Your task to perform on an android device: Add bose soundlink mini to the cart on newegg.com Image 0: 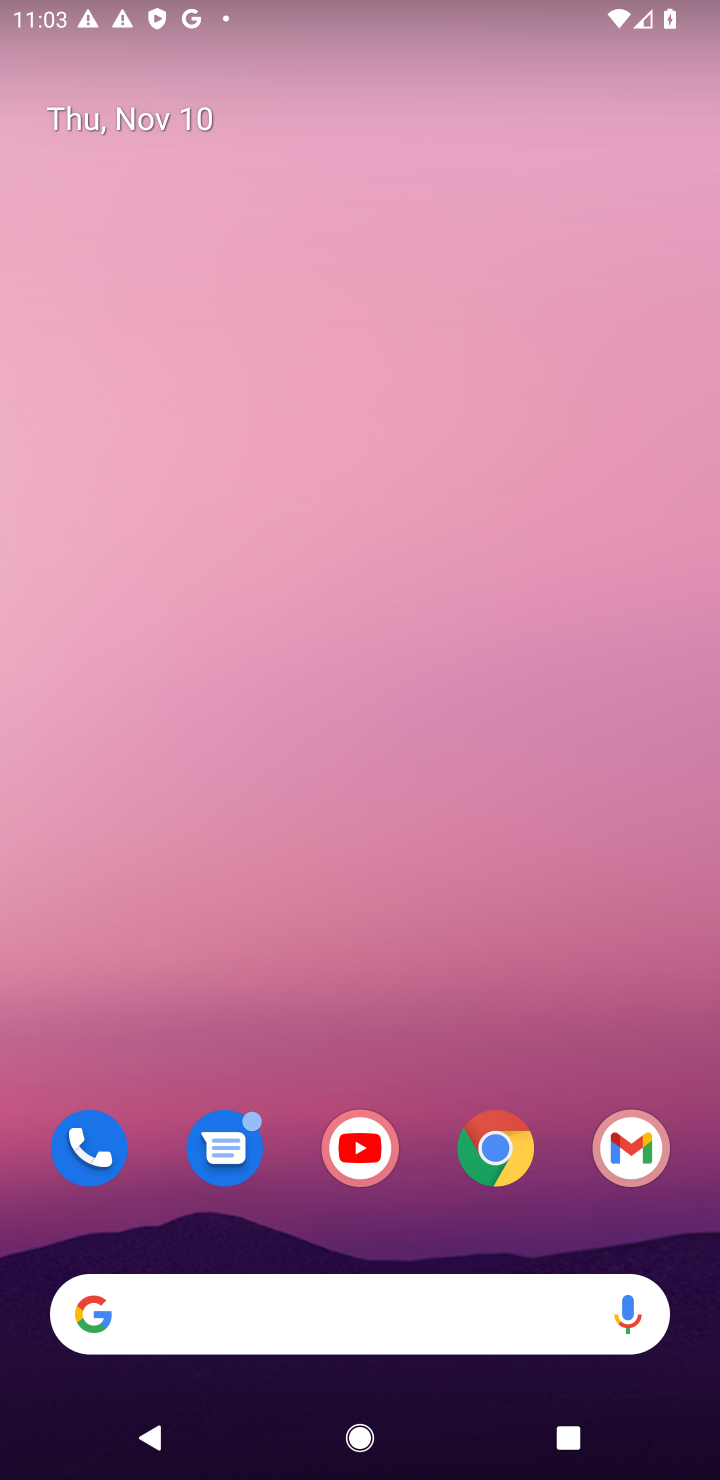
Step 0: click (484, 1167)
Your task to perform on an android device: Add bose soundlink mini to the cart on newegg.com Image 1: 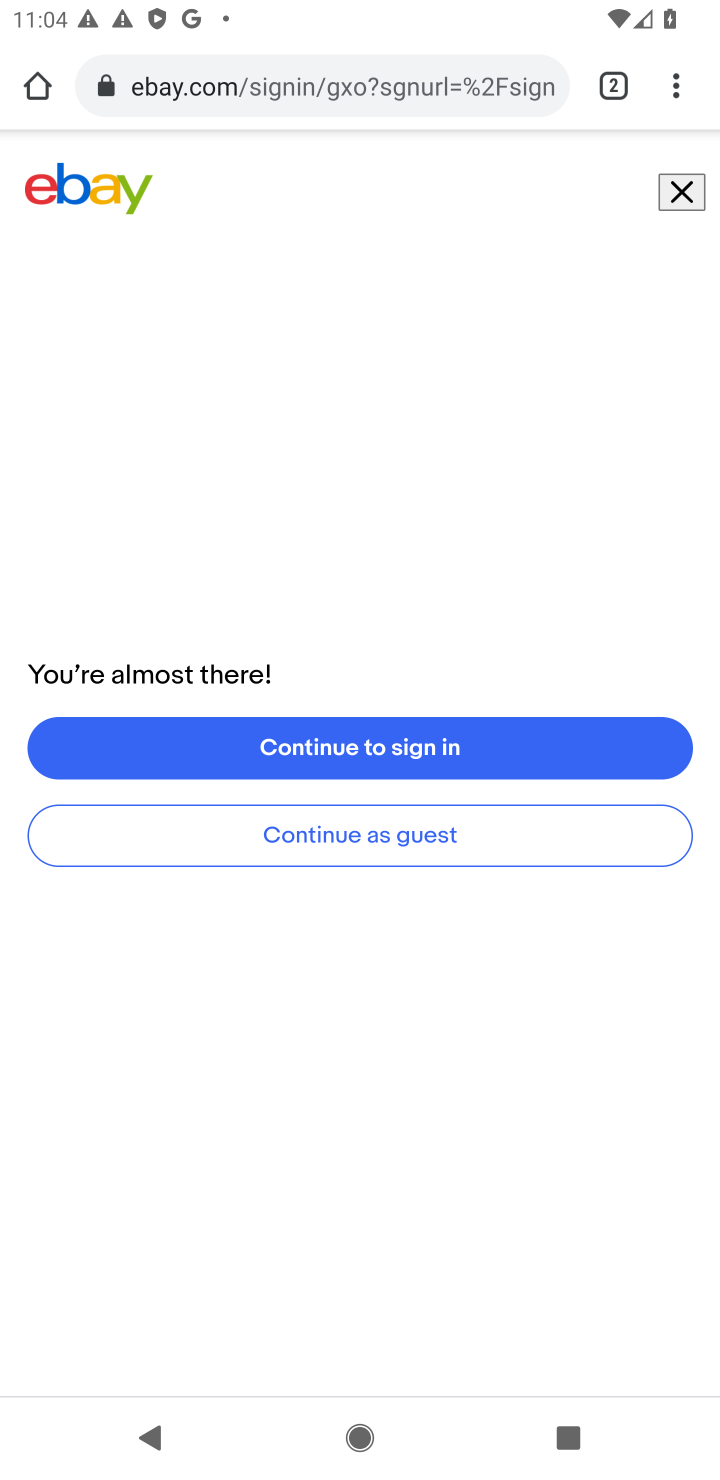
Step 1: click (617, 90)
Your task to perform on an android device: Add bose soundlink mini to the cart on newegg.com Image 2: 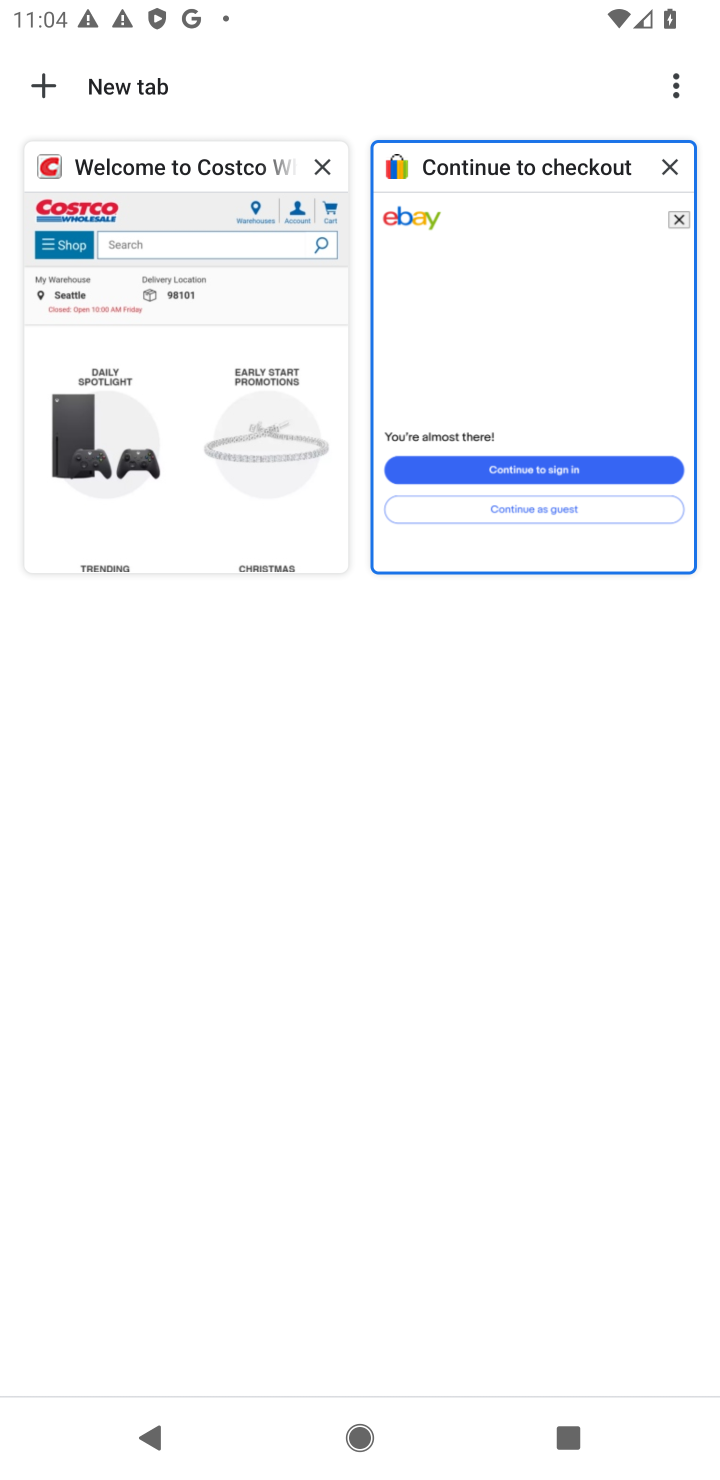
Step 2: click (42, 99)
Your task to perform on an android device: Add bose soundlink mini to the cart on newegg.com Image 3: 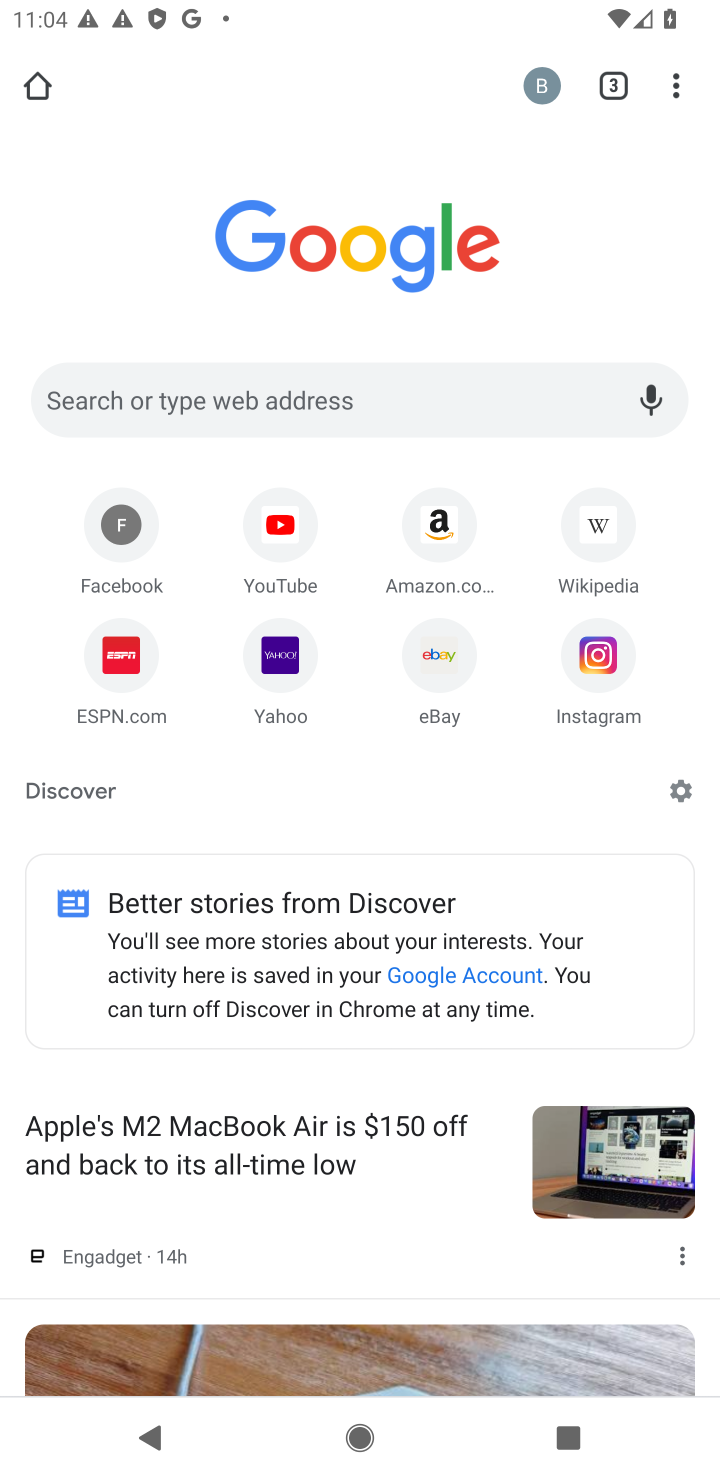
Step 3: click (344, 403)
Your task to perform on an android device: Add bose soundlink mini to the cart on newegg.com Image 4: 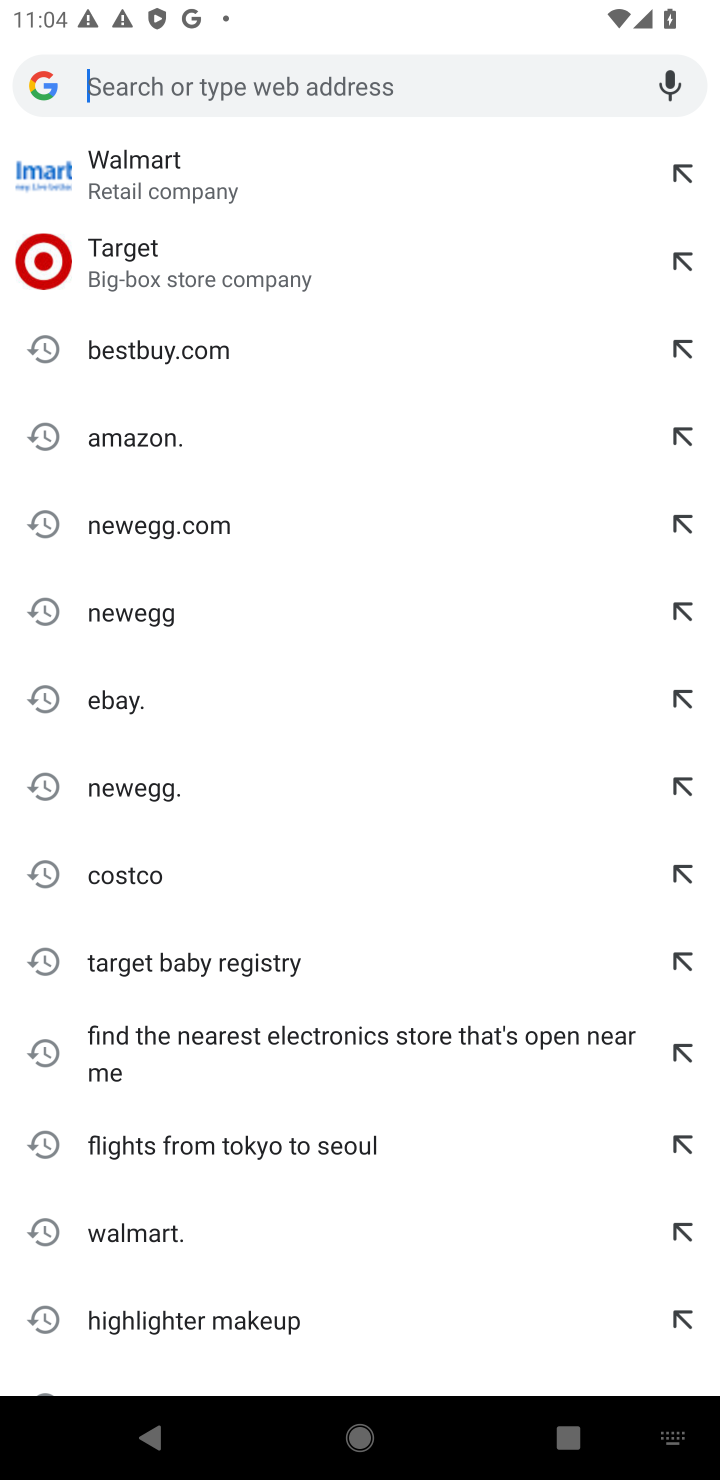
Step 4: click (153, 523)
Your task to perform on an android device: Add bose soundlink mini to the cart on newegg.com Image 5: 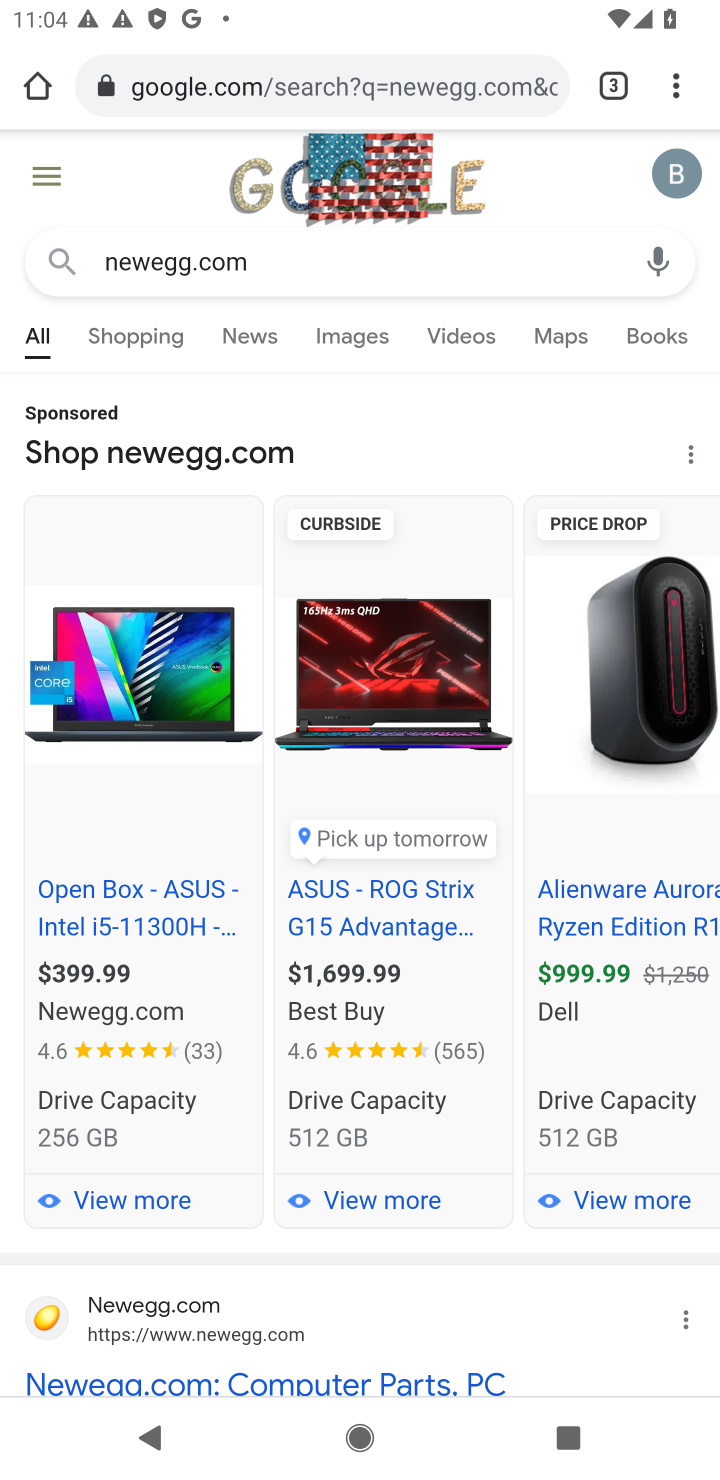
Step 5: drag from (264, 1273) to (325, 1050)
Your task to perform on an android device: Add bose soundlink mini to the cart on newegg.com Image 6: 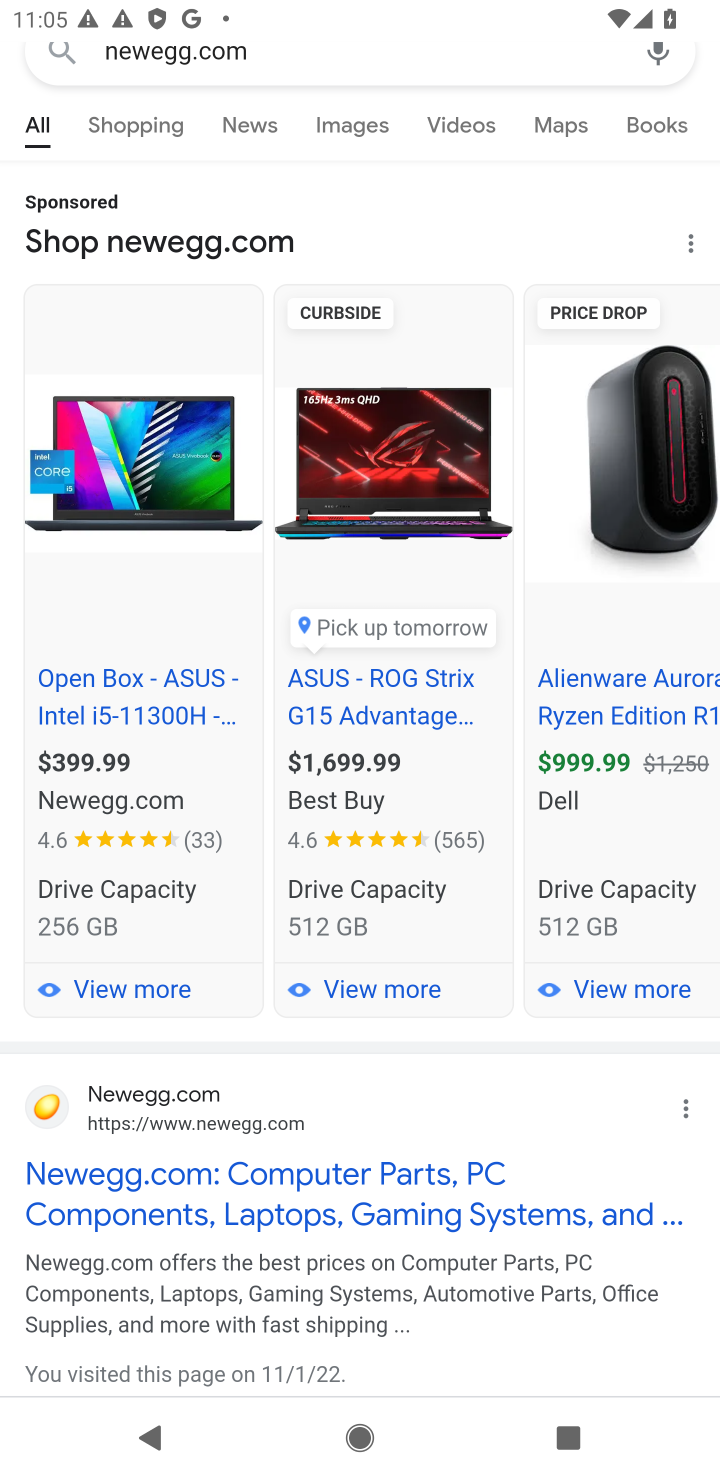
Step 6: drag from (329, 1271) to (364, 927)
Your task to perform on an android device: Add bose soundlink mini to the cart on newegg.com Image 7: 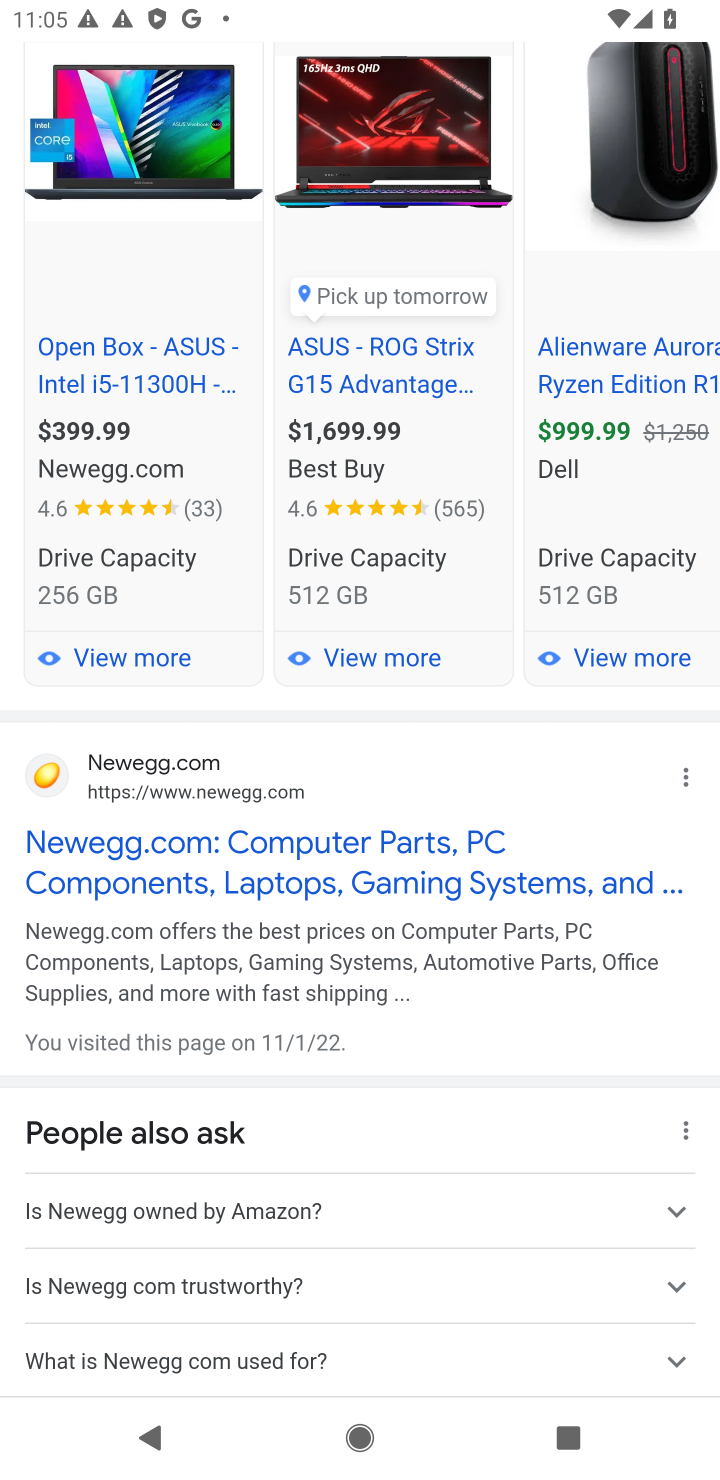
Step 7: click (364, 847)
Your task to perform on an android device: Add bose soundlink mini to the cart on newegg.com Image 8: 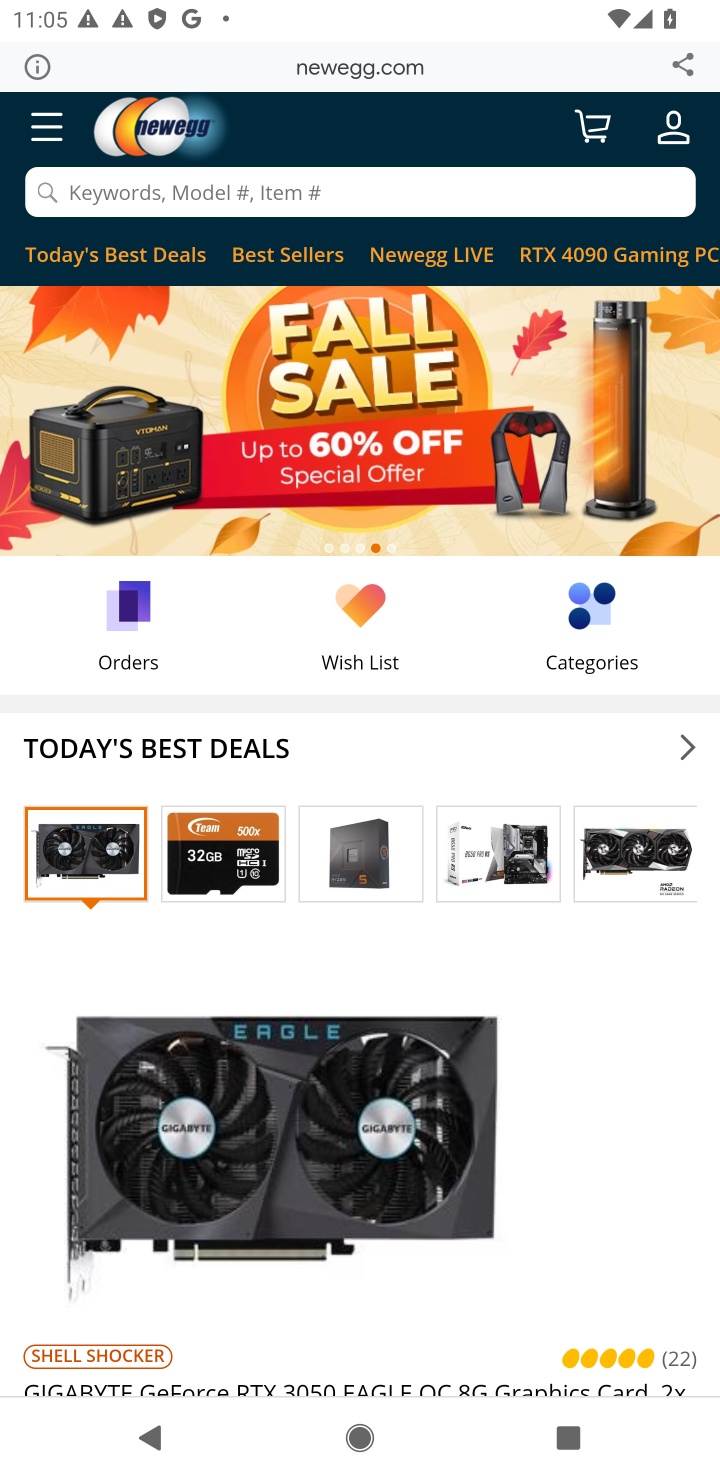
Step 8: click (298, 200)
Your task to perform on an android device: Add bose soundlink mini to the cart on newegg.com Image 9: 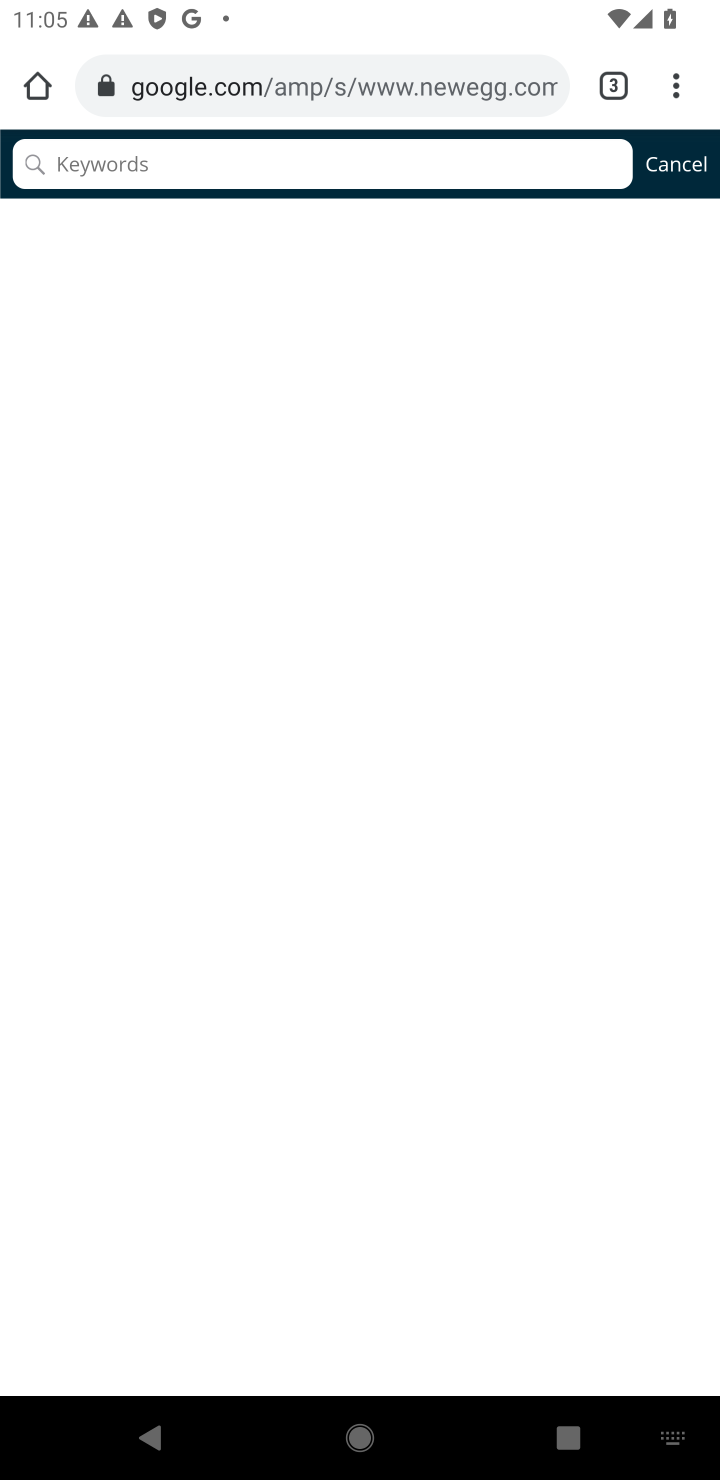
Step 9: type "bose soundlink mini"
Your task to perform on an android device: Add bose soundlink mini to the cart on newegg.com Image 10: 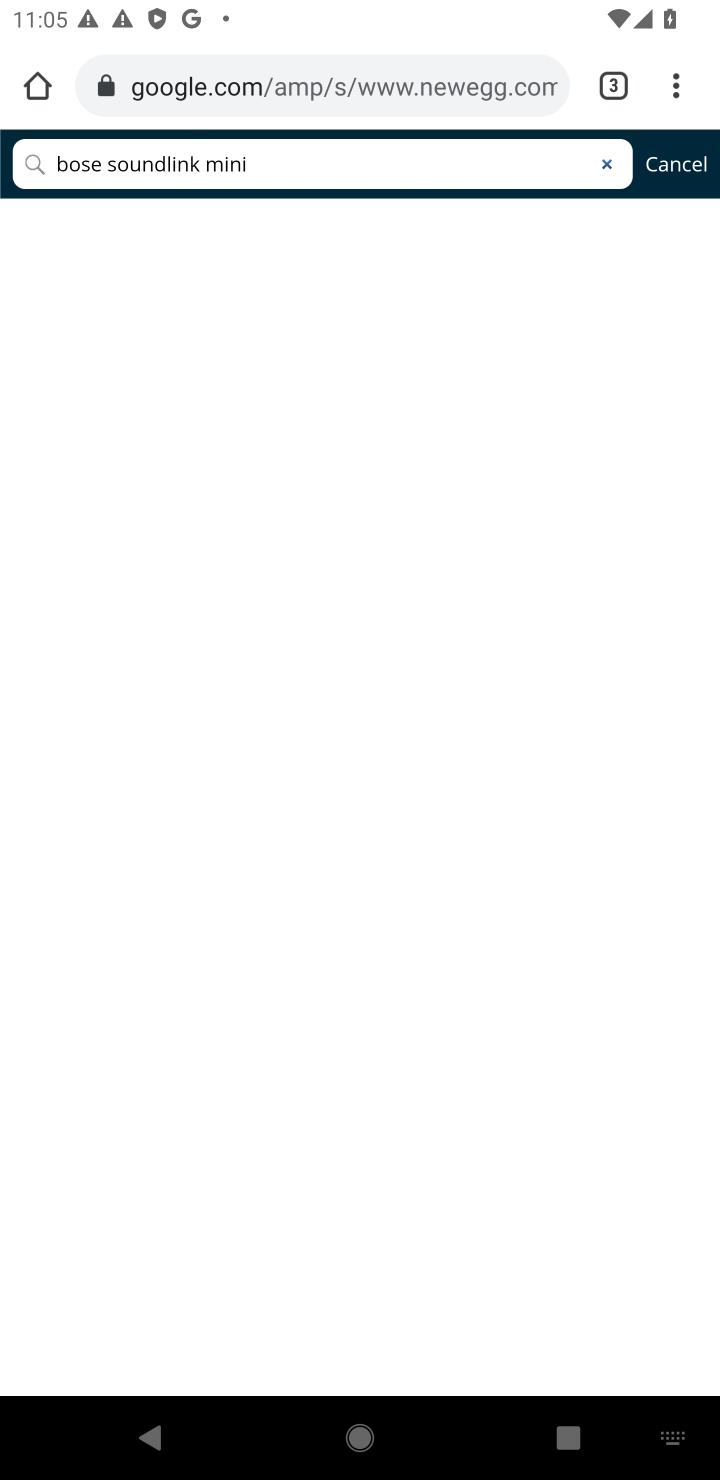
Step 10: click (678, 170)
Your task to perform on an android device: Add bose soundlink mini to the cart on newegg.com Image 11: 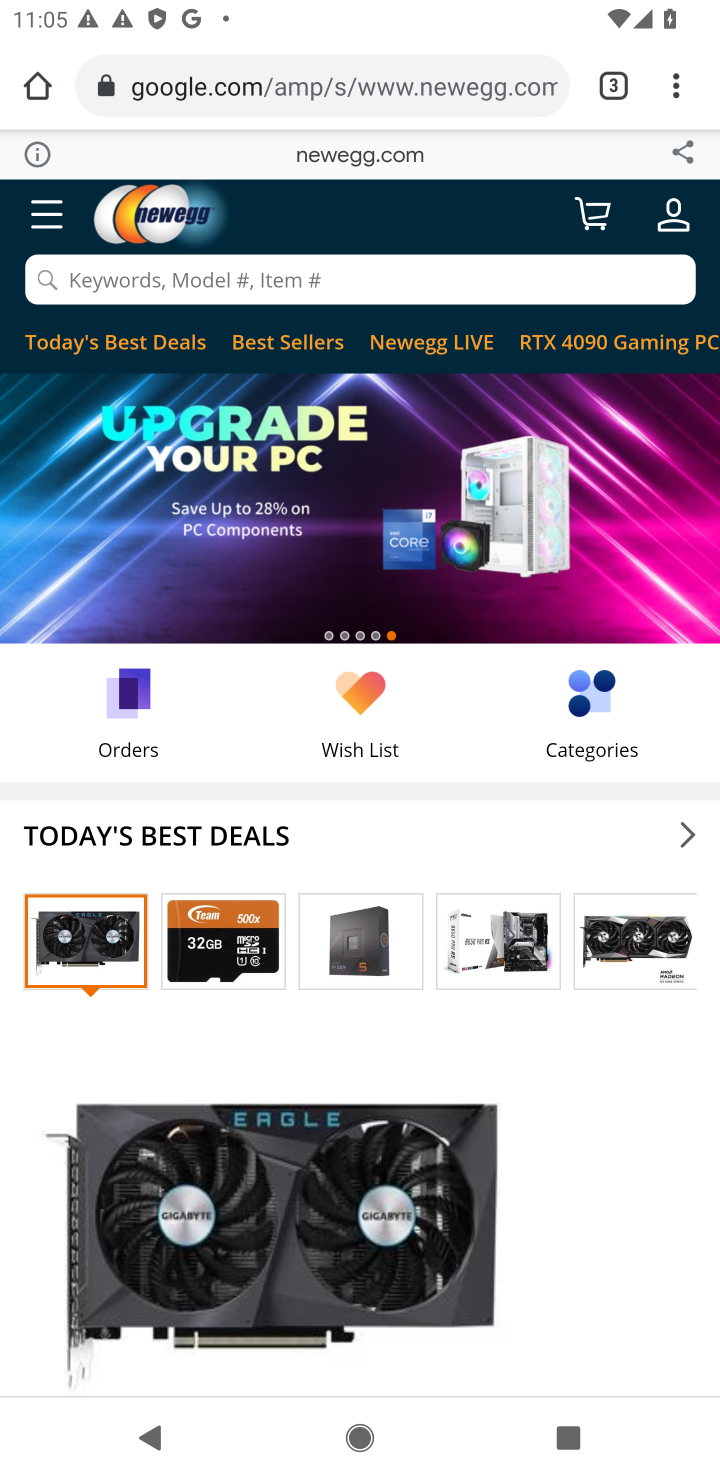
Step 11: click (481, 88)
Your task to perform on an android device: Add bose soundlink mini to the cart on newegg.com Image 12: 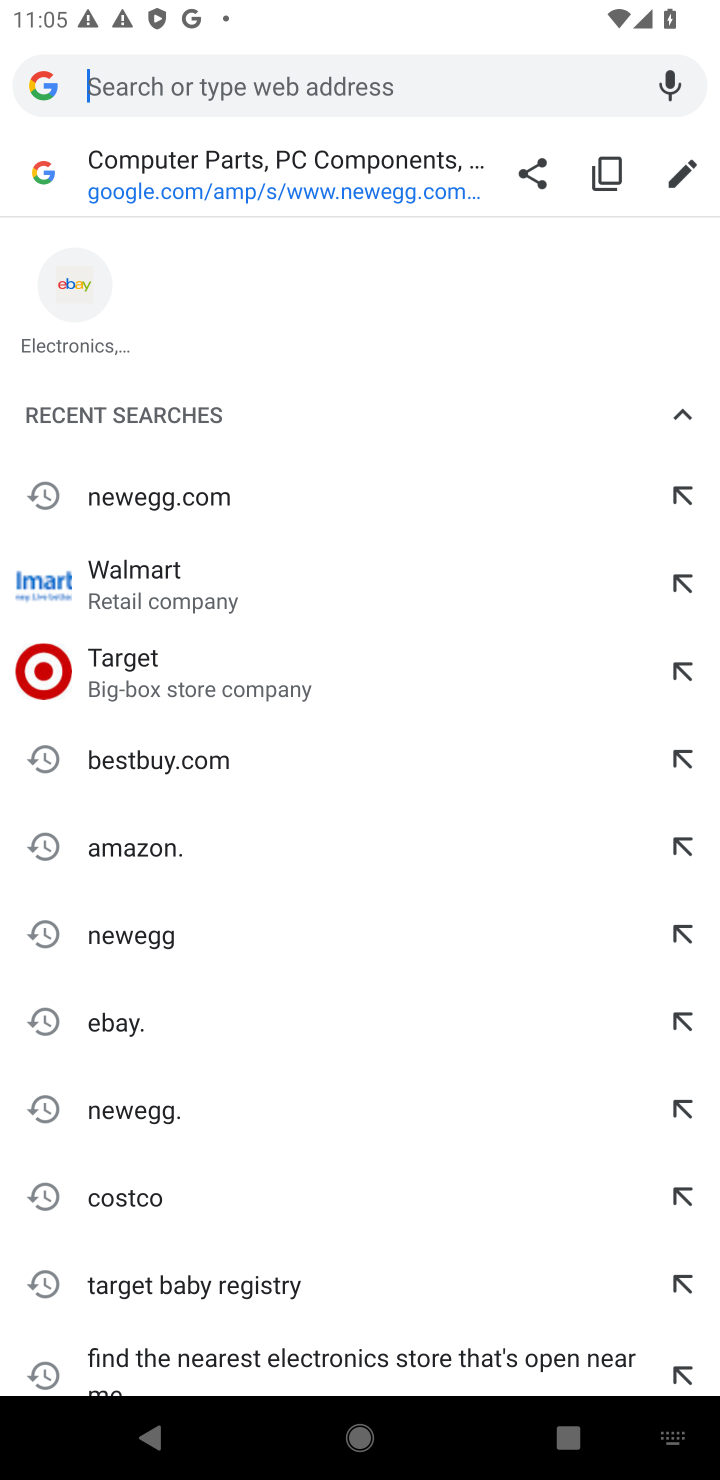
Step 12: type "bose soundlink mini on newegg"
Your task to perform on an android device: Add bose soundlink mini to the cart on newegg.com Image 13: 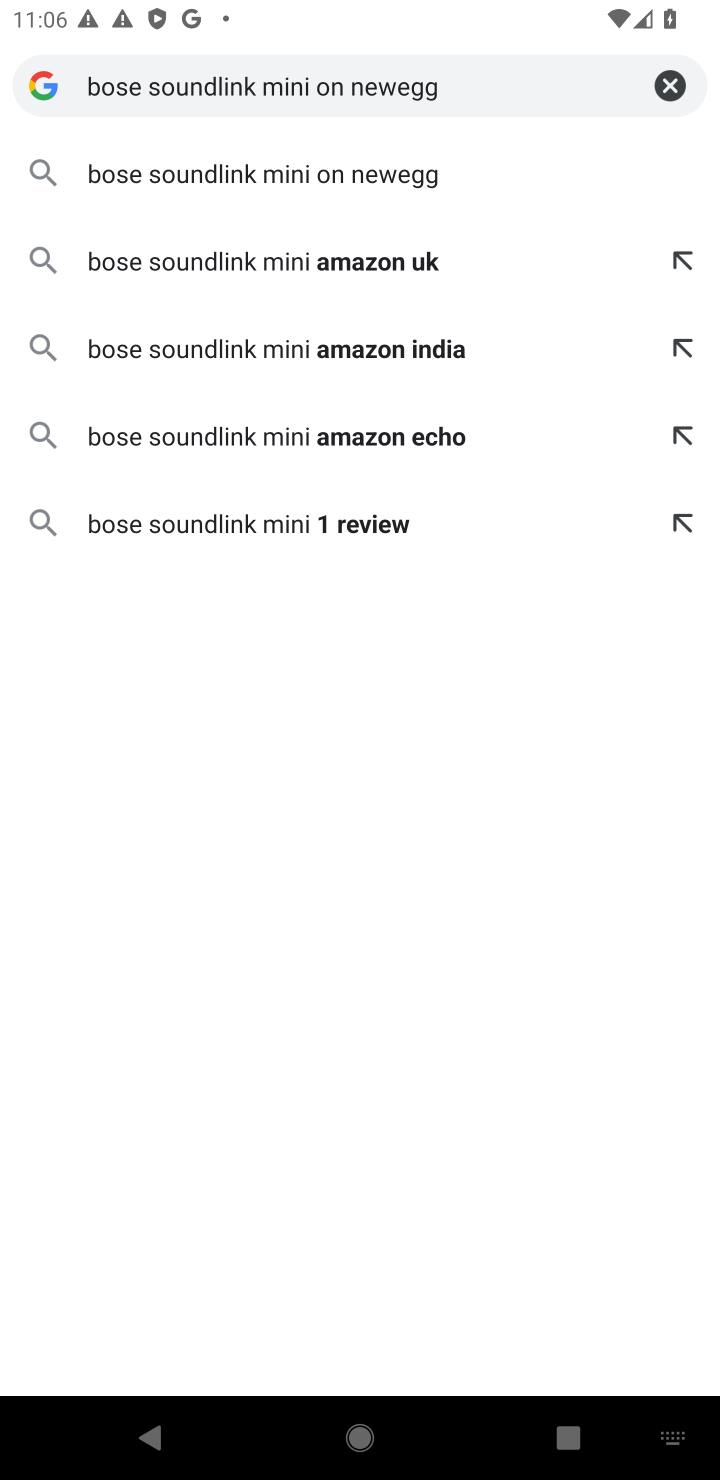
Step 13: click (366, 172)
Your task to perform on an android device: Add bose soundlink mini to the cart on newegg.com Image 14: 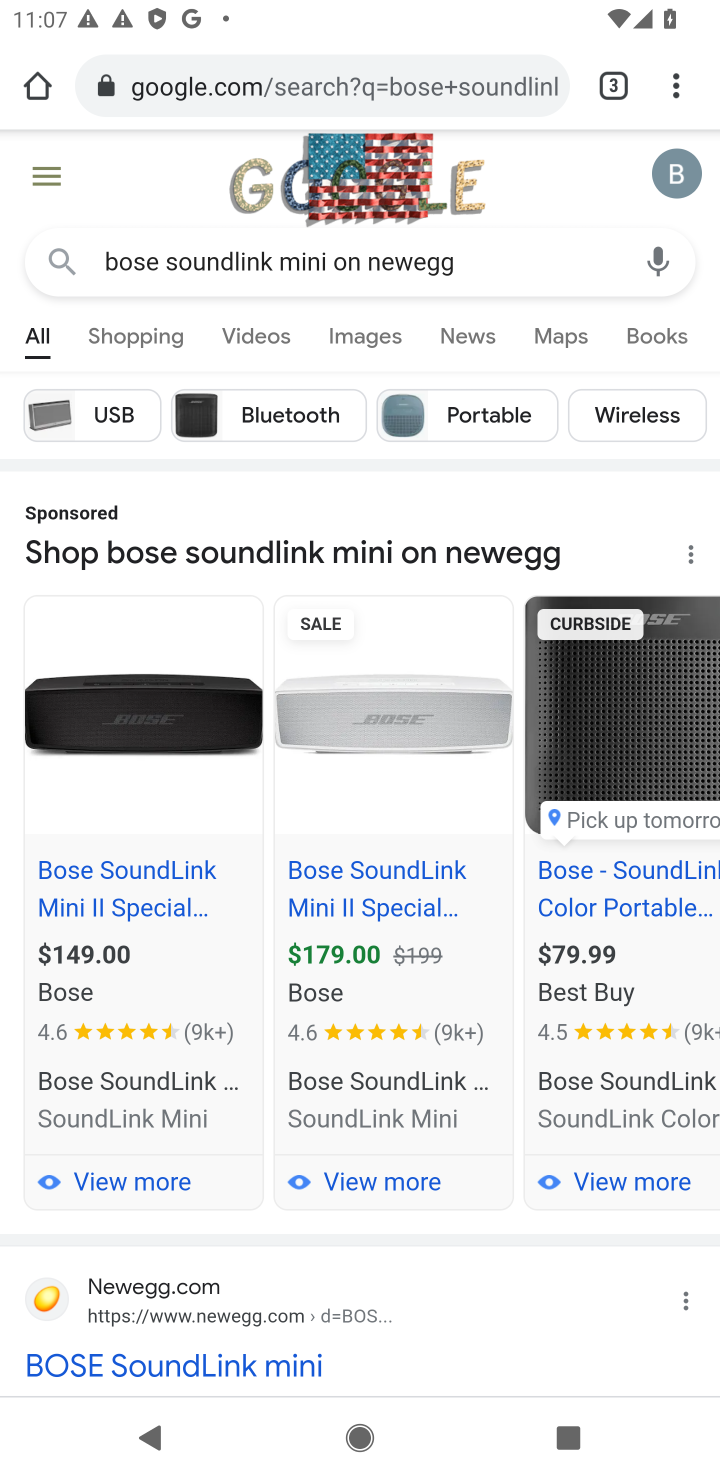
Step 14: drag from (590, 921) to (191, 945)
Your task to perform on an android device: Add bose soundlink mini to the cart on newegg.com Image 15: 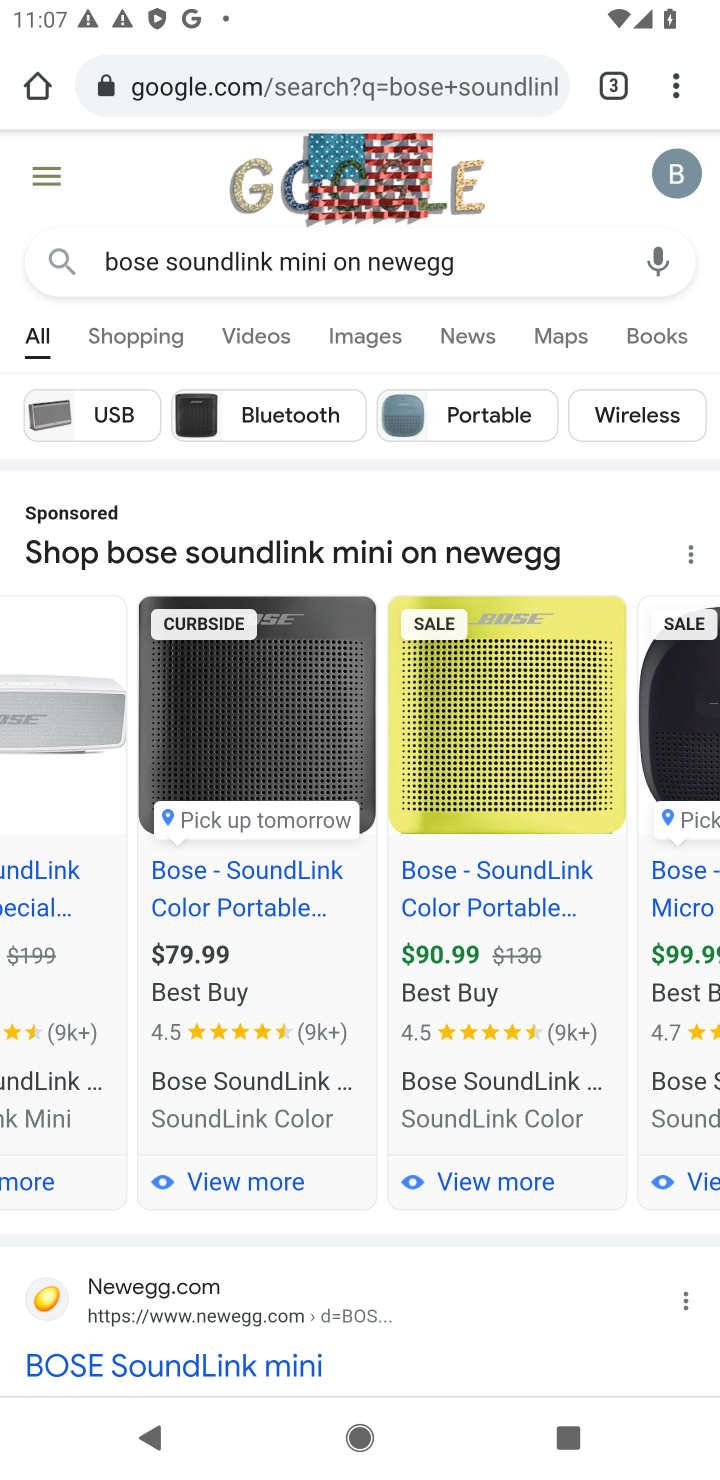
Step 15: click (230, 1365)
Your task to perform on an android device: Add bose soundlink mini to the cart on newegg.com Image 16: 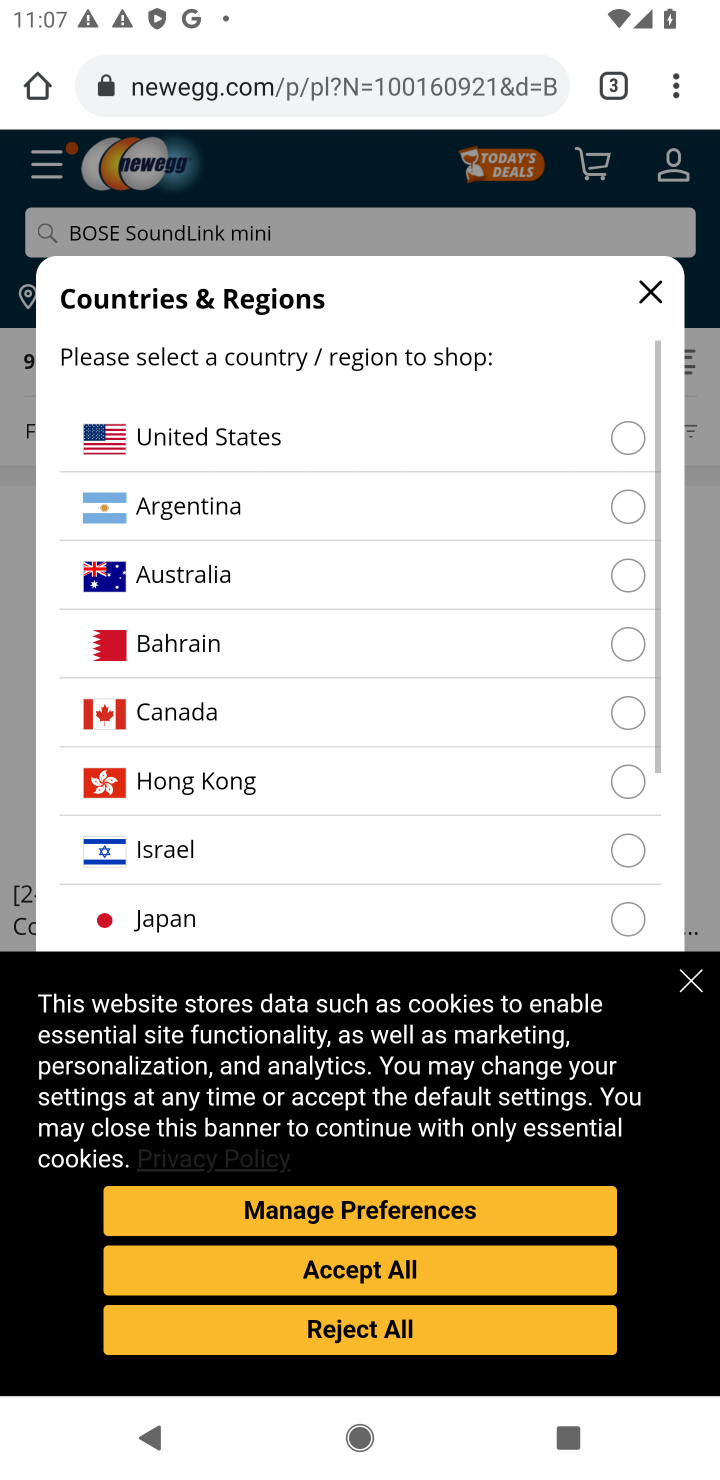
Step 16: click (451, 1327)
Your task to perform on an android device: Add bose soundlink mini to the cart on newegg.com Image 17: 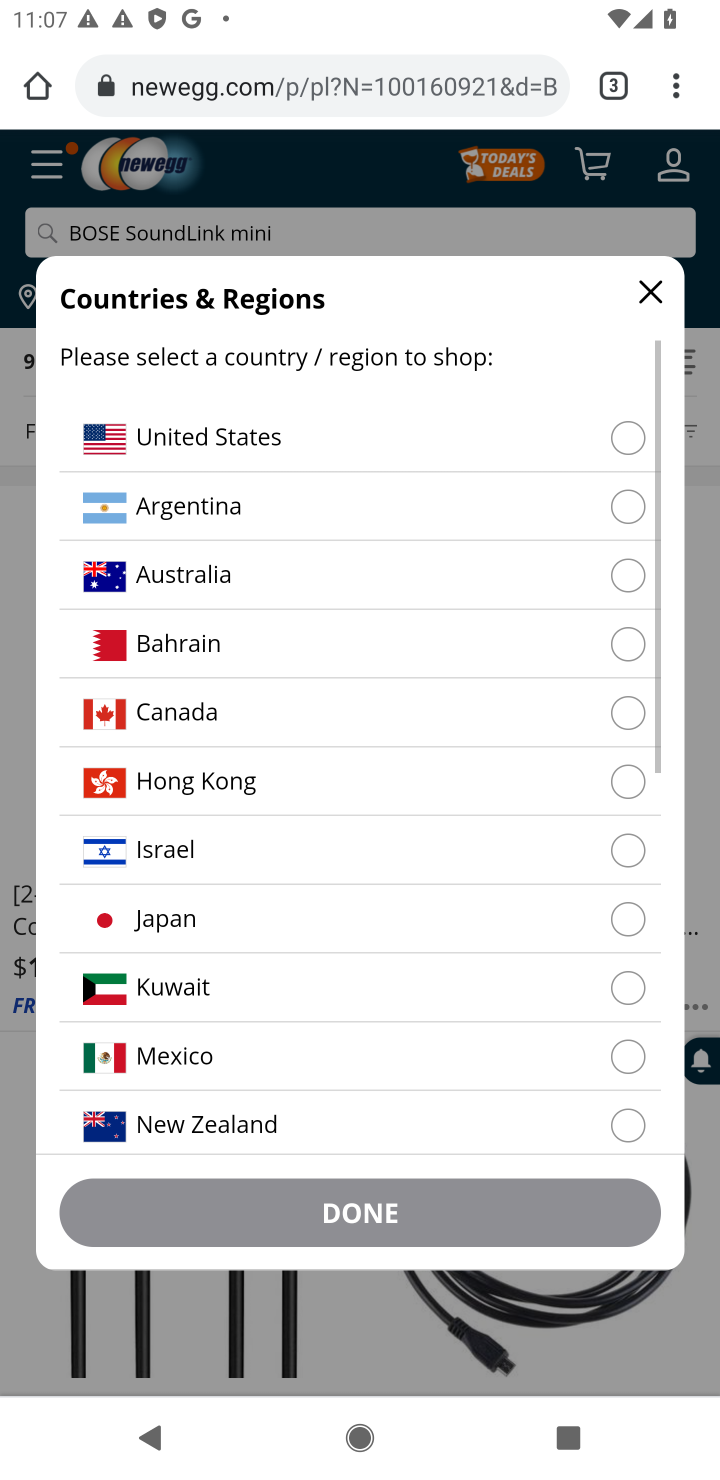
Step 17: click (631, 425)
Your task to perform on an android device: Add bose soundlink mini to the cart on newegg.com Image 18: 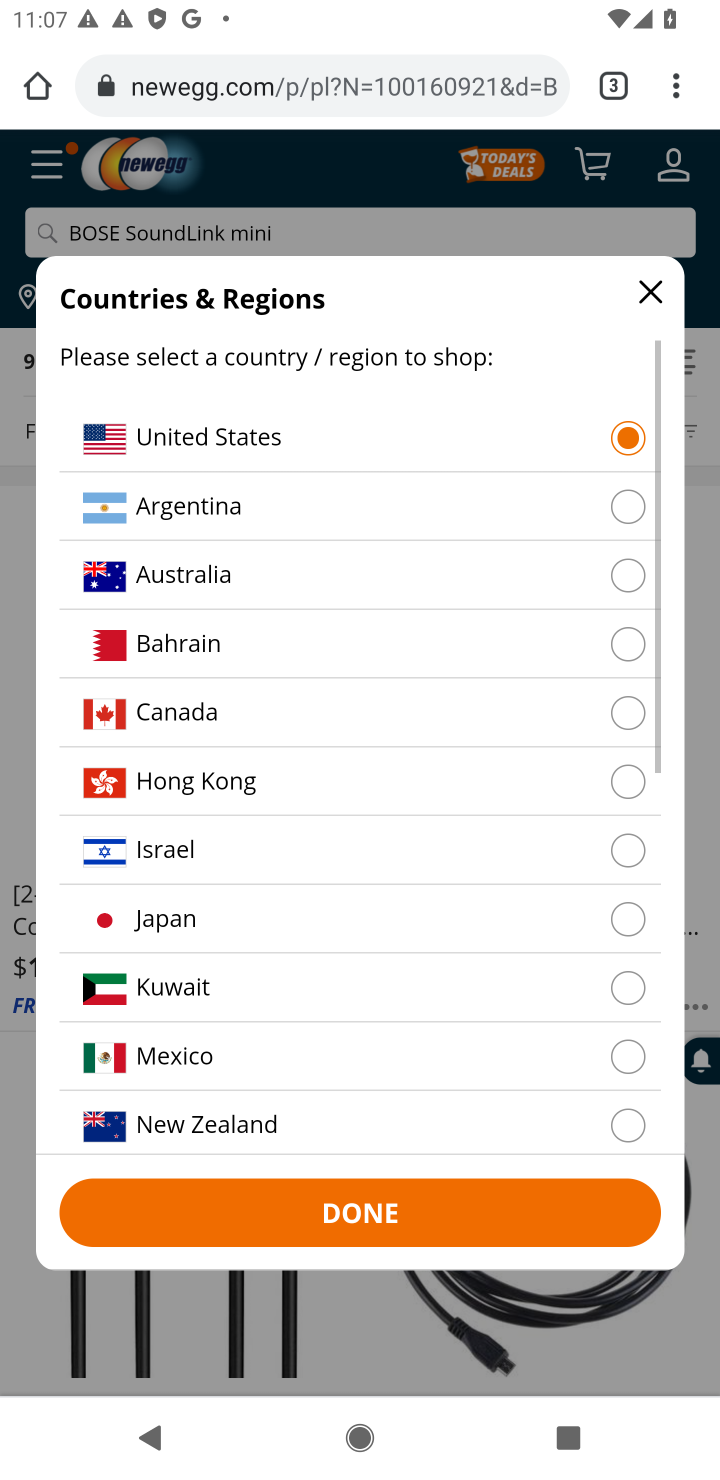
Step 18: click (372, 1207)
Your task to perform on an android device: Add bose soundlink mini to the cart on newegg.com Image 19: 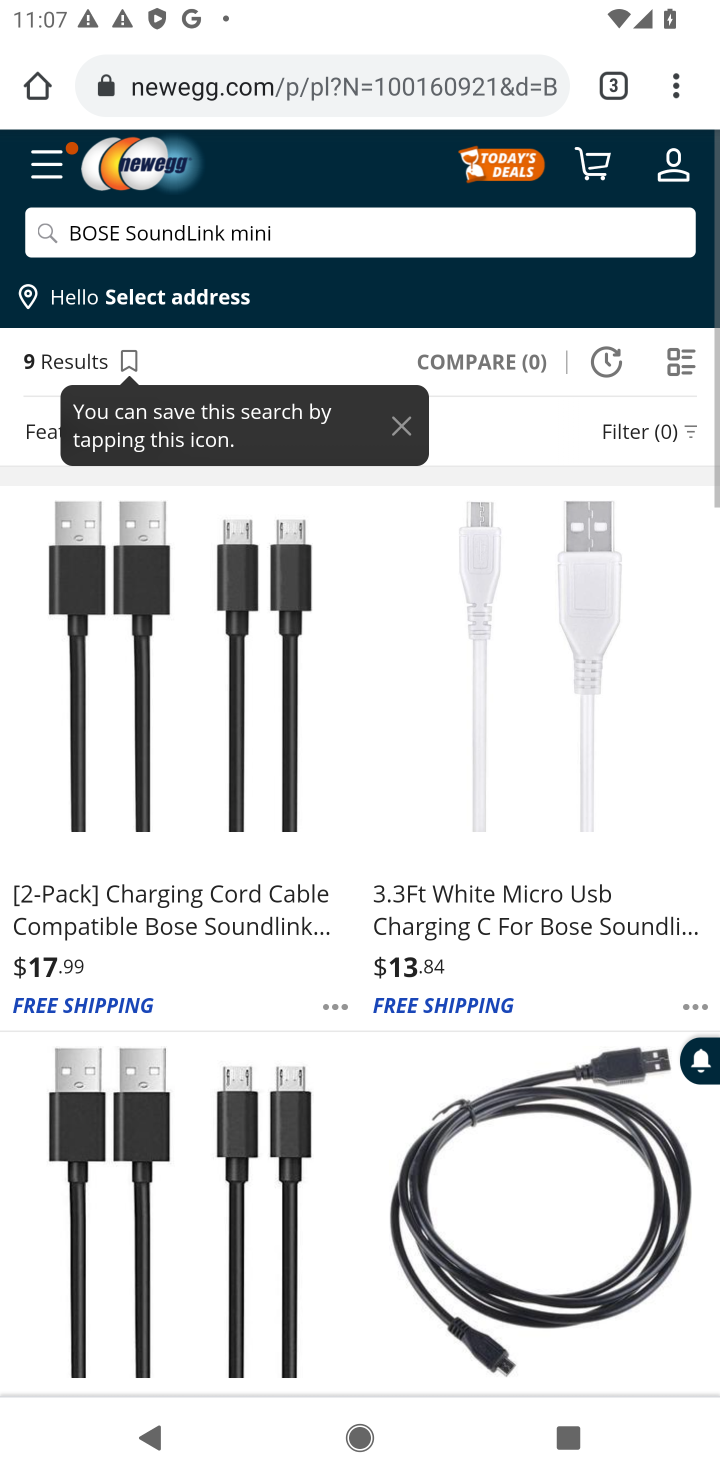
Step 19: task complete